Your task to perform on an android device: turn pop-ups off in chrome Image 0: 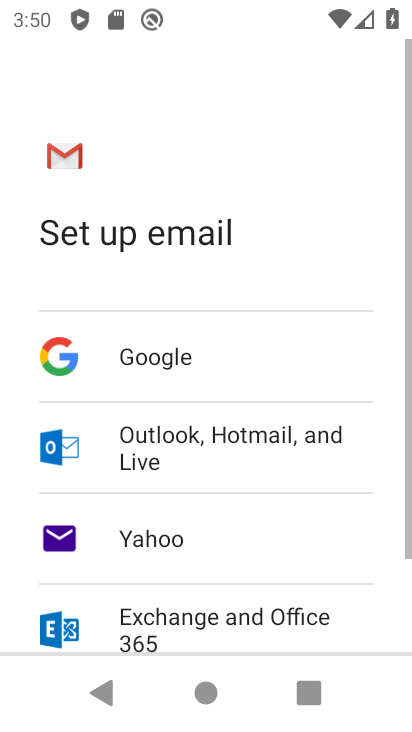
Step 0: press home button
Your task to perform on an android device: turn pop-ups off in chrome Image 1: 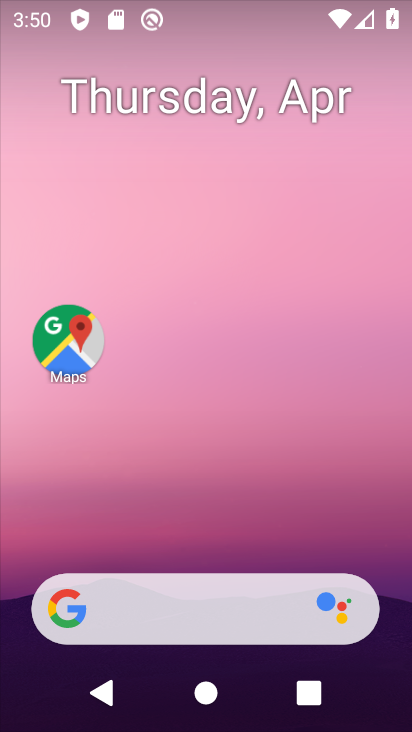
Step 1: drag from (205, 722) to (200, 84)
Your task to perform on an android device: turn pop-ups off in chrome Image 2: 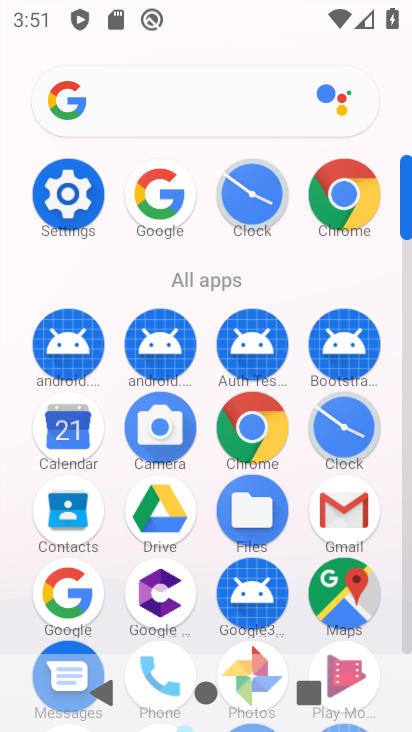
Step 2: click (347, 197)
Your task to perform on an android device: turn pop-ups off in chrome Image 3: 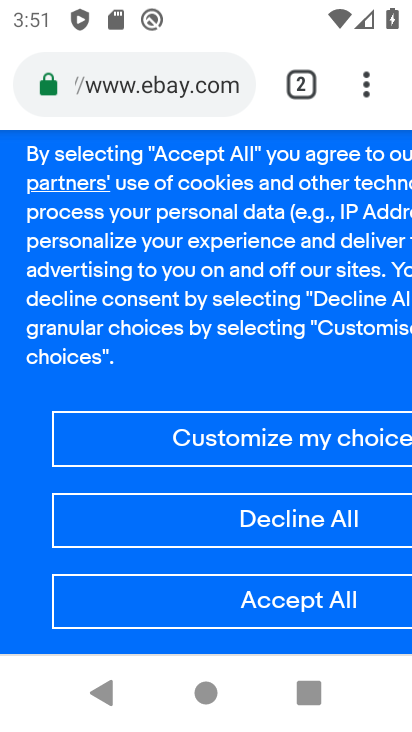
Step 3: drag from (367, 89) to (147, 502)
Your task to perform on an android device: turn pop-ups off in chrome Image 4: 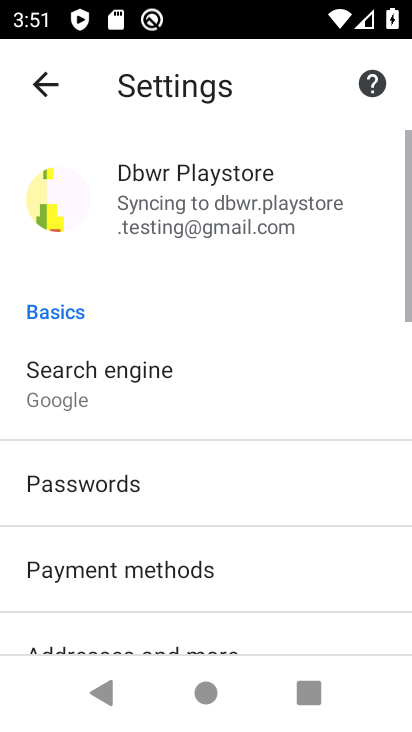
Step 4: drag from (153, 626) to (186, 231)
Your task to perform on an android device: turn pop-ups off in chrome Image 5: 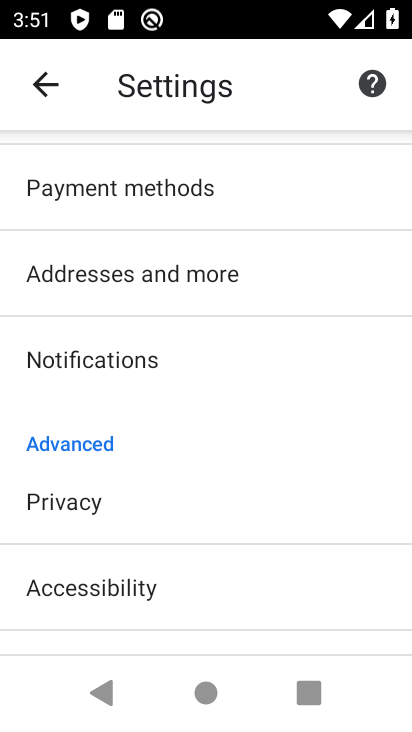
Step 5: drag from (154, 632) to (169, 270)
Your task to perform on an android device: turn pop-ups off in chrome Image 6: 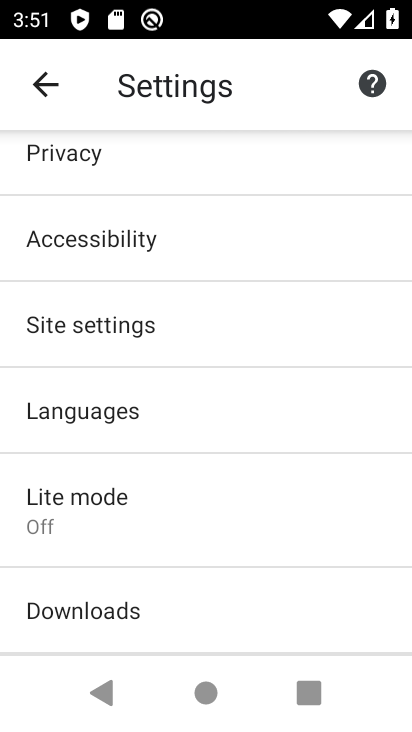
Step 6: click (116, 321)
Your task to perform on an android device: turn pop-ups off in chrome Image 7: 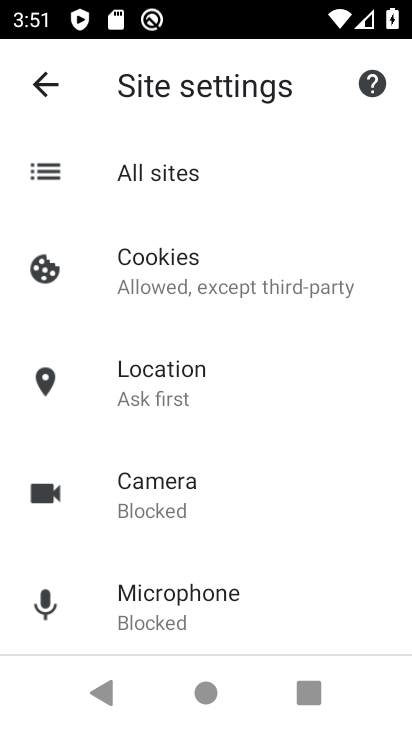
Step 7: drag from (190, 600) to (191, 262)
Your task to perform on an android device: turn pop-ups off in chrome Image 8: 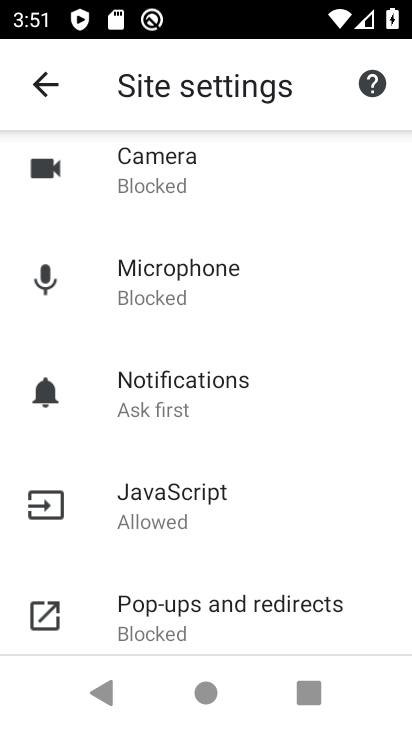
Step 8: click (183, 604)
Your task to perform on an android device: turn pop-ups off in chrome Image 9: 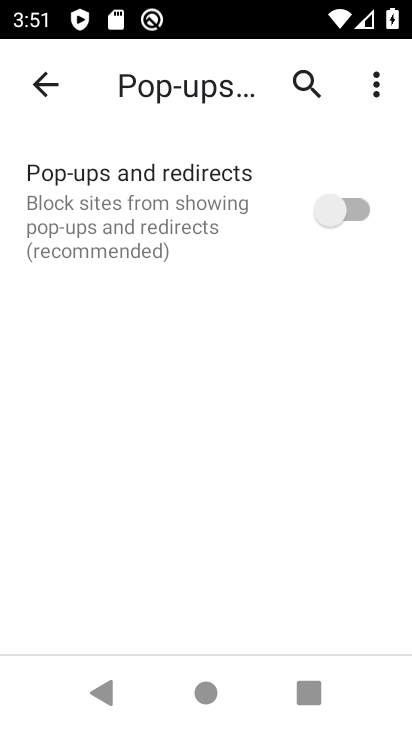
Step 9: task complete